Your task to perform on an android device: delete browsing data in the chrome app Image 0: 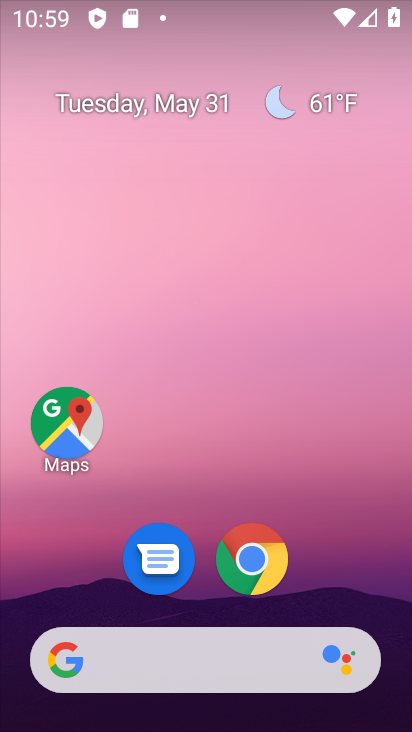
Step 0: drag from (294, 552) to (322, 5)
Your task to perform on an android device: delete browsing data in the chrome app Image 1: 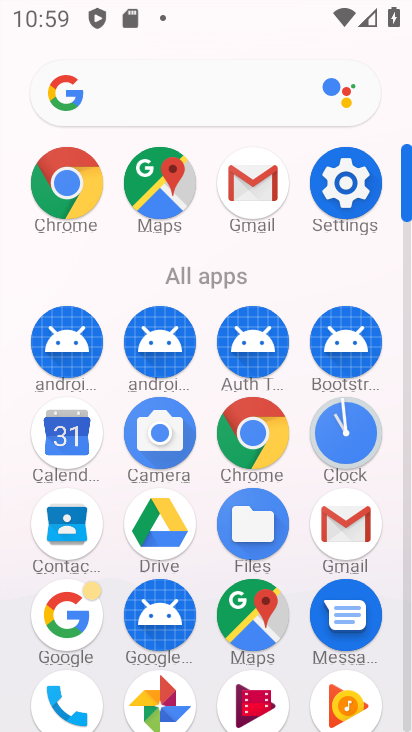
Step 1: click (264, 430)
Your task to perform on an android device: delete browsing data in the chrome app Image 2: 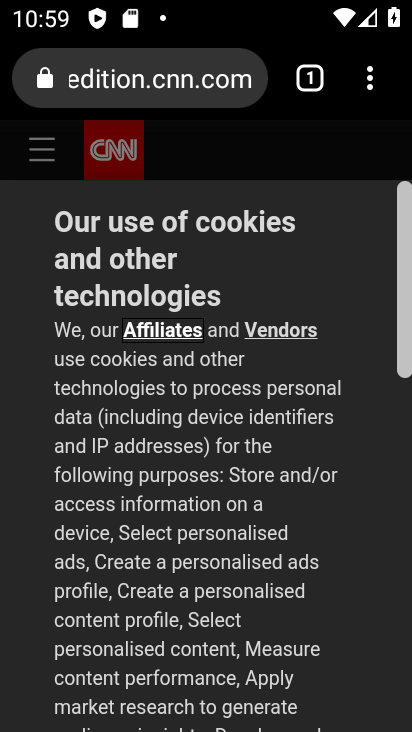
Step 2: drag from (365, 78) to (164, 438)
Your task to perform on an android device: delete browsing data in the chrome app Image 3: 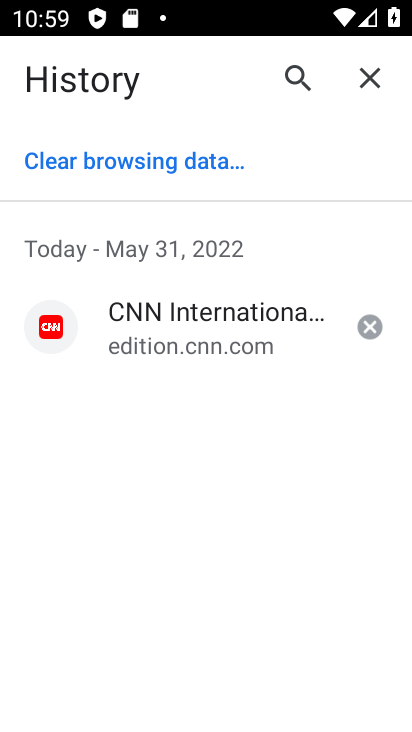
Step 3: click (376, 331)
Your task to perform on an android device: delete browsing data in the chrome app Image 4: 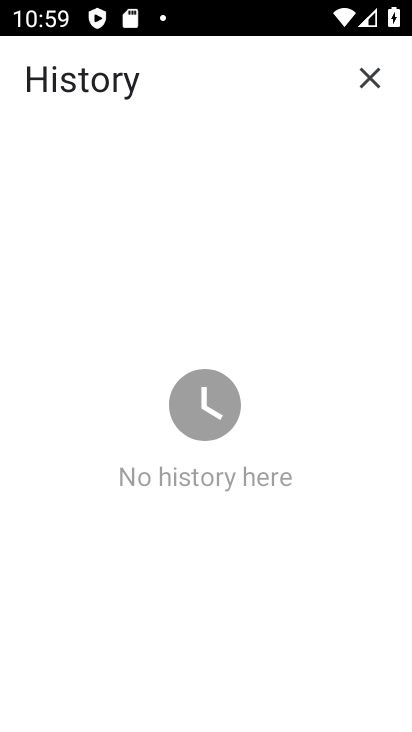
Step 4: task complete